Your task to perform on an android device: delete a single message in the gmail app Image 0: 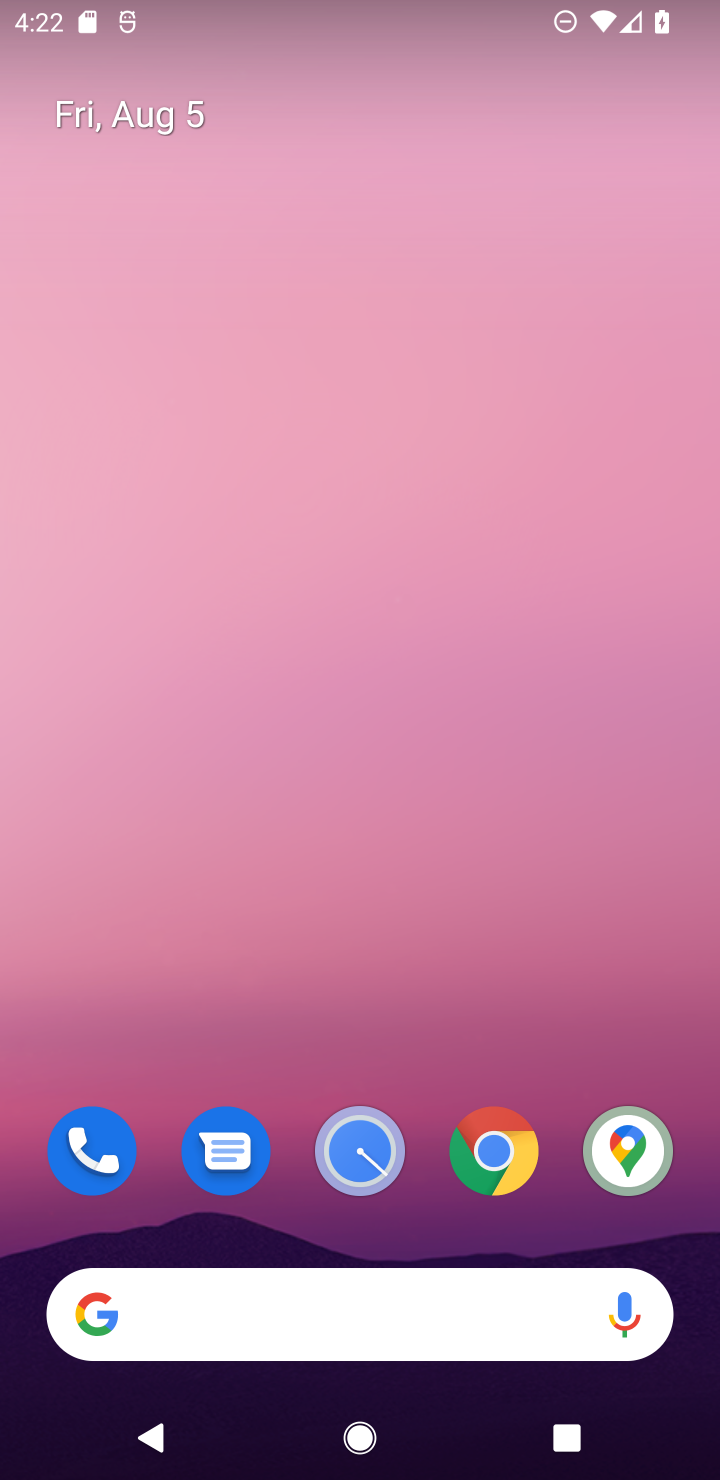
Step 0: drag from (575, 995) to (521, 211)
Your task to perform on an android device: delete a single message in the gmail app Image 1: 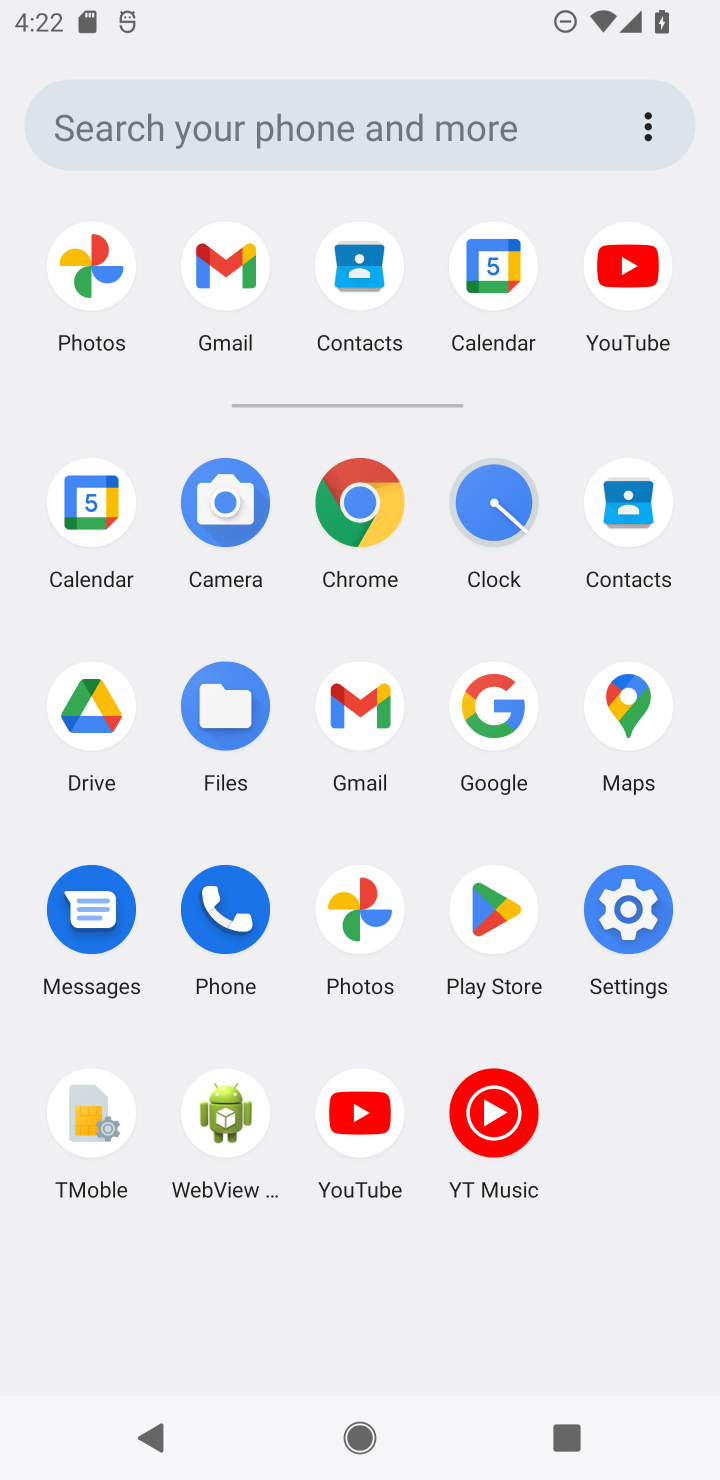
Step 1: click (355, 686)
Your task to perform on an android device: delete a single message in the gmail app Image 2: 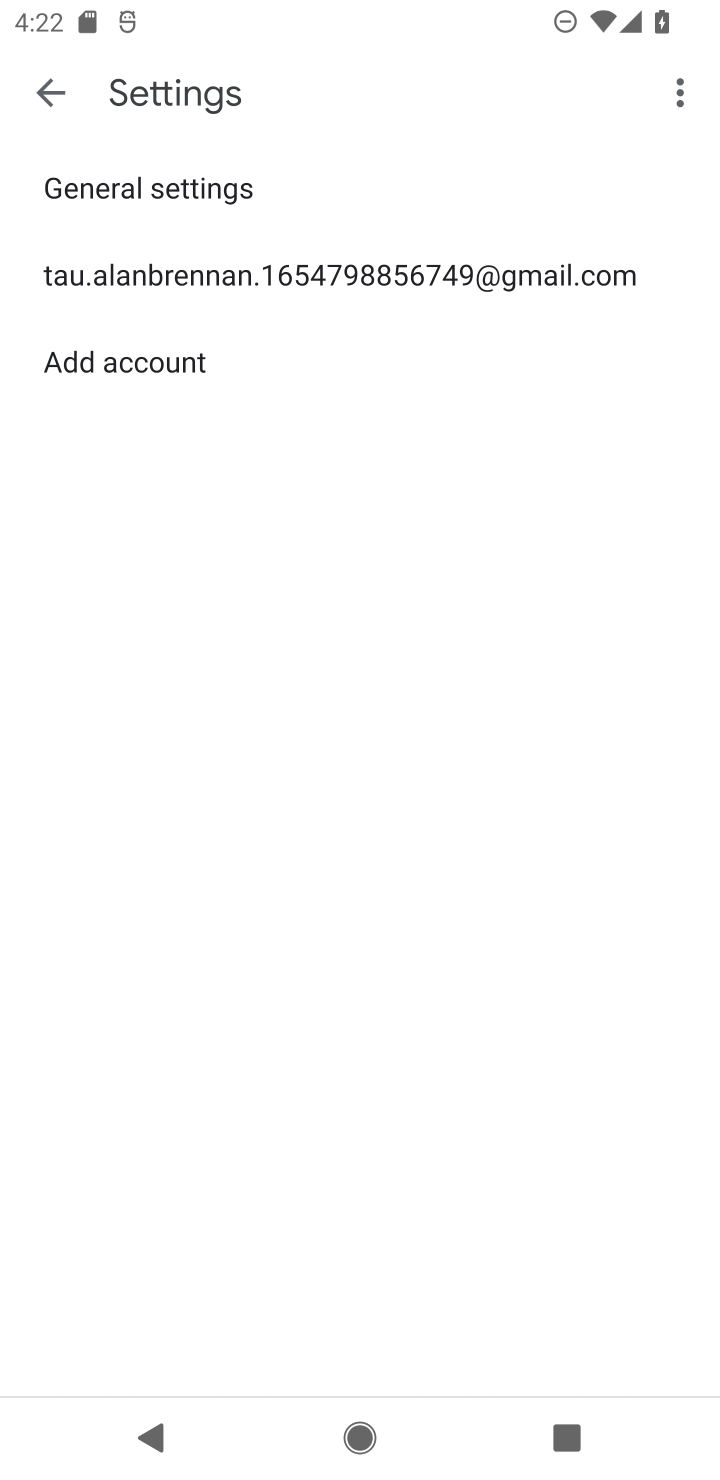
Step 2: click (56, 97)
Your task to perform on an android device: delete a single message in the gmail app Image 3: 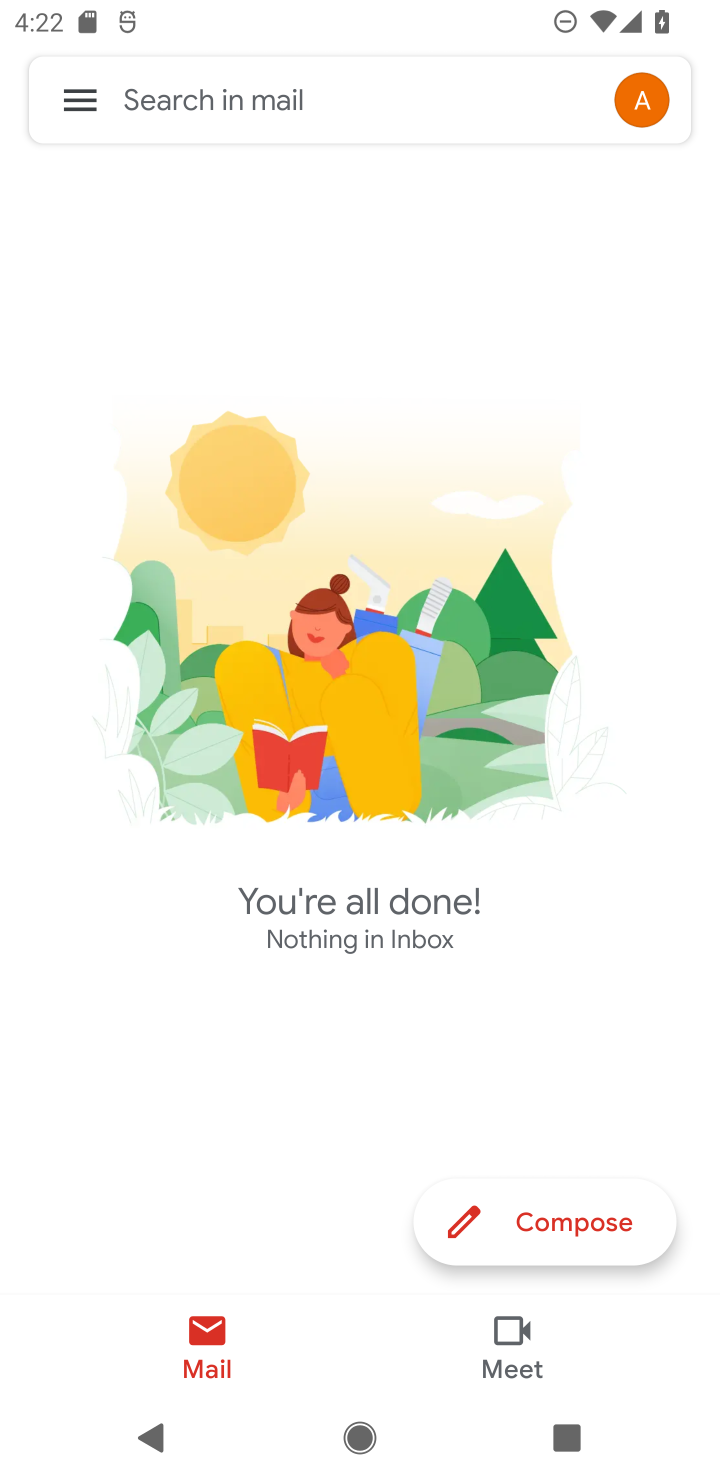
Step 3: task complete